Your task to perform on an android device: Open Google Chrome and click the shortcut for Amazon.com Image 0: 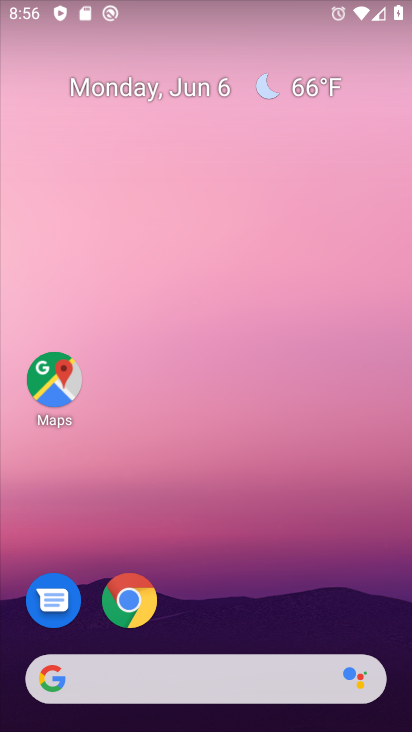
Step 0: click (135, 601)
Your task to perform on an android device: Open Google Chrome and click the shortcut for Amazon.com Image 1: 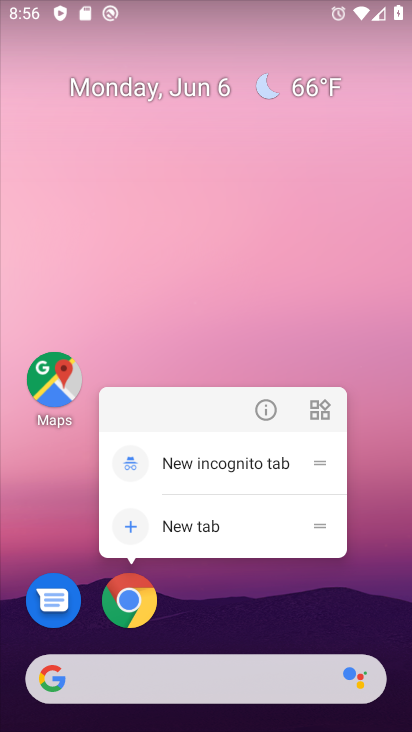
Step 1: click (135, 598)
Your task to perform on an android device: Open Google Chrome and click the shortcut for Amazon.com Image 2: 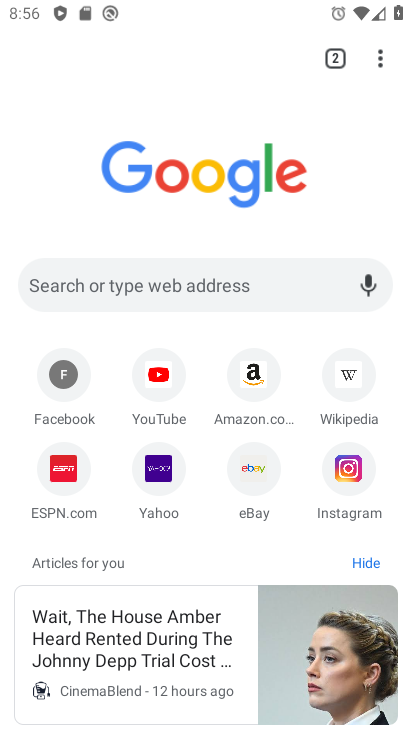
Step 2: click (256, 383)
Your task to perform on an android device: Open Google Chrome and click the shortcut for Amazon.com Image 3: 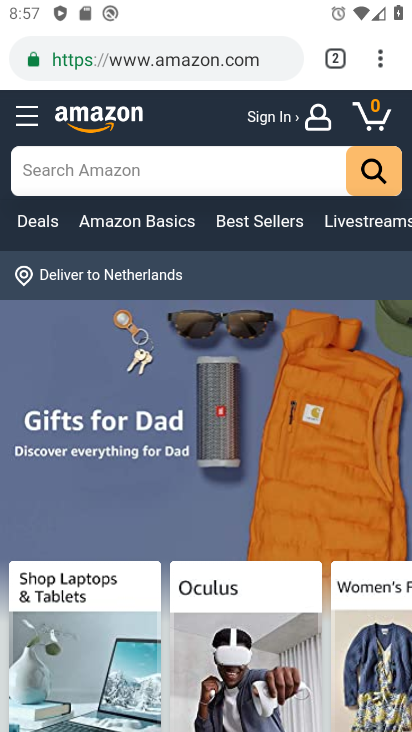
Step 3: task complete